Your task to perform on an android device: refresh tabs in the chrome app Image 0: 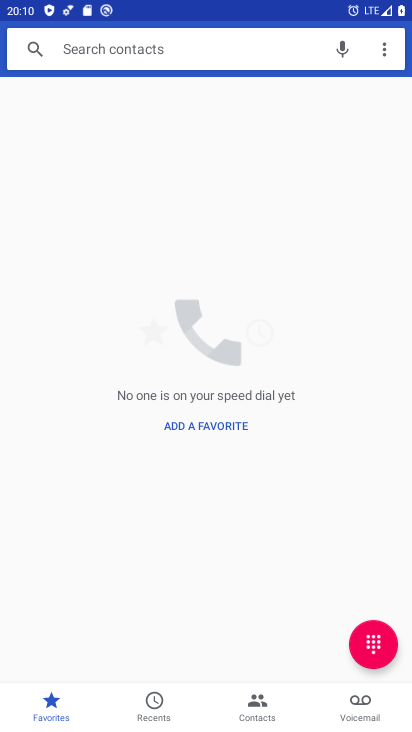
Step 0: press home button
Your task to perform on an android device: refresh tabs in the chrome app Image 1: 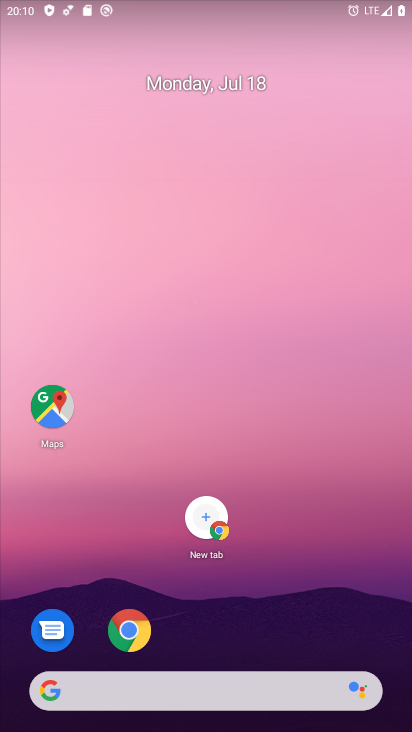
Step 1: click (281, 310)
Your task to perform on an android device: refresh tabs in the chrome app Image 2: 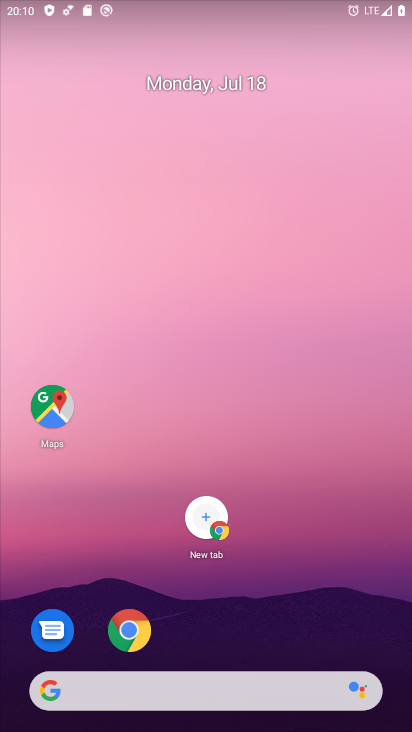
Step 2: click (124, 616)
Your task to perform on an android device: refresh tabs in the chrome app Image 3: 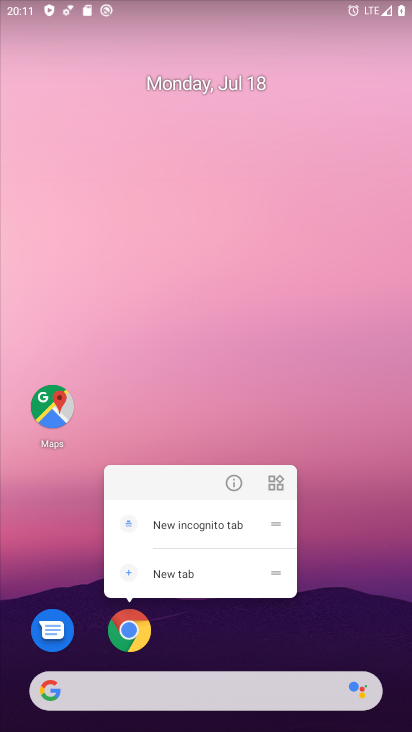
Step 3: click (132, 624)
Your task to perform on an android device: refresh tabs in the chrome app Image 4: 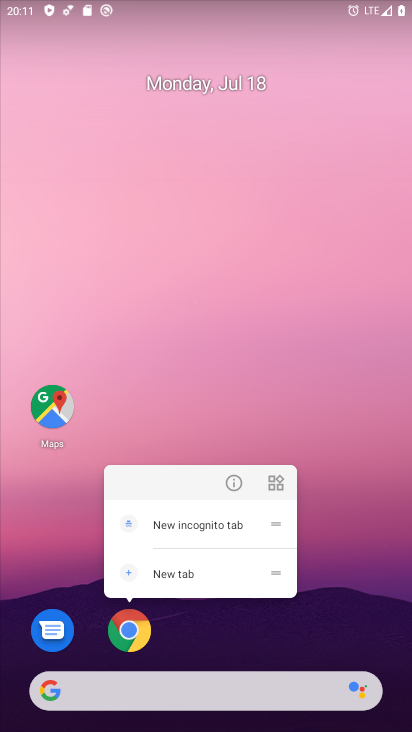
Step 4: drag from (181, 679) to (236, 285)
Your task to perform on an android device: refresh tabs in the chrome app Image 5: 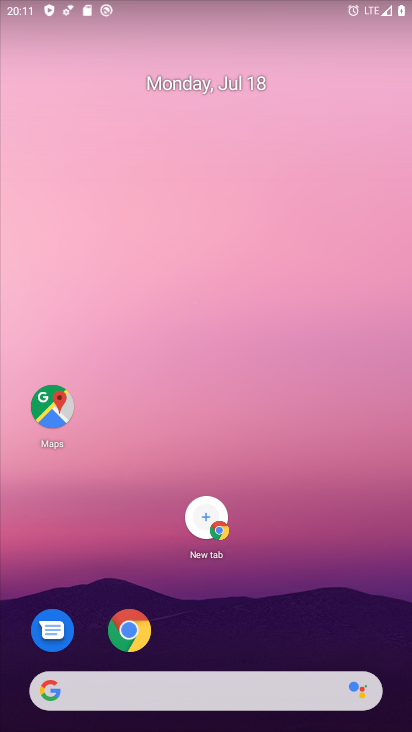
Step 5: drag from (206, 653) to (245, 267)
Your task to perform on an android device: refresh tabs in the chrome app Image 6: 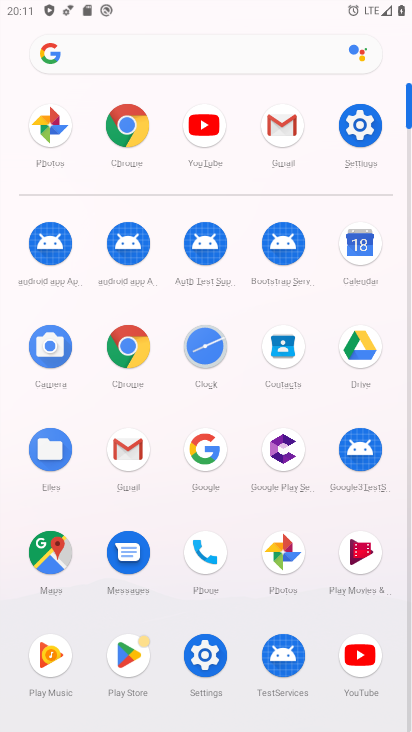
Step 6: click (141, 336)
Your task to perform on an android device: refresh tabs in the chrome app Image 7: 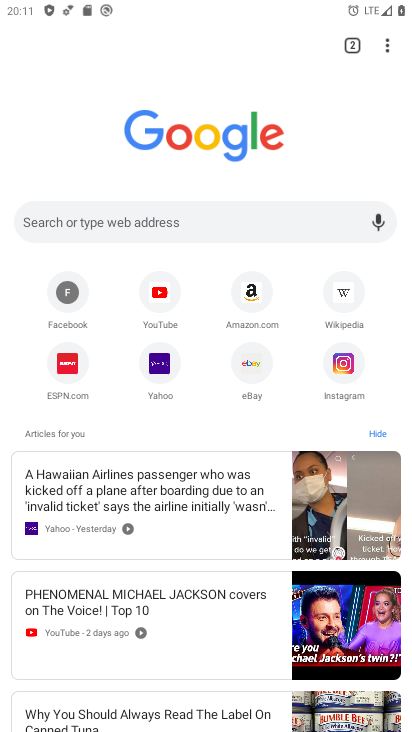
Step 7: click (389, 44)
Your task to perform on an android device: refresh tabs in the chrome app Image 8: 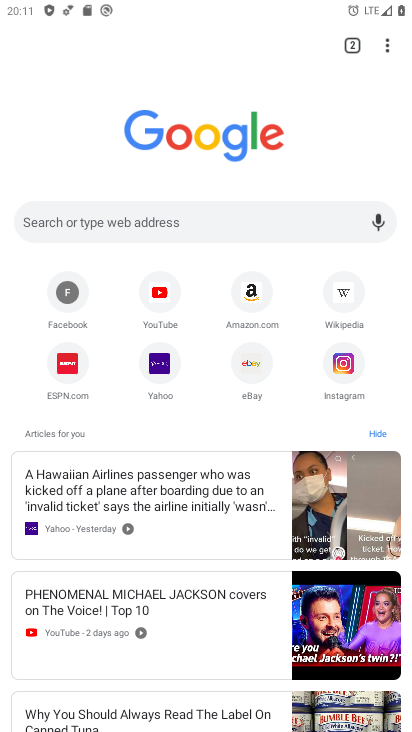
Step 8: click (389, 44)
Your task to perform on an android device: refresh tabs in the chrome app Image 9: 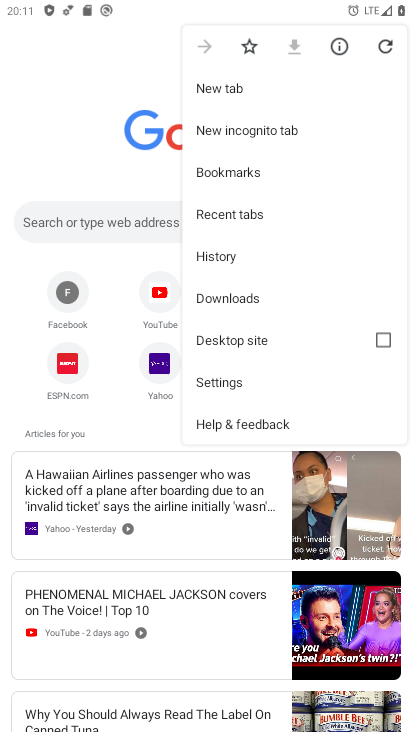
Step 9: click (385, 45)
Your task to perform on an android device: refresh tabs in the chrome app Image 10: 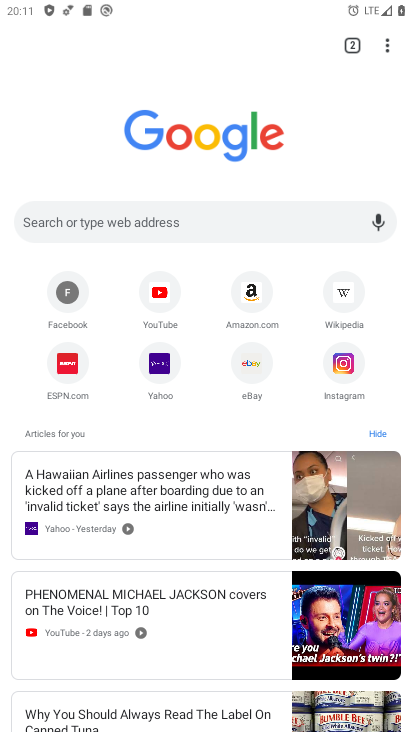
Step 10: task complete